Your task to perform on an android device: search for starred emails in the gmail app Image 0: 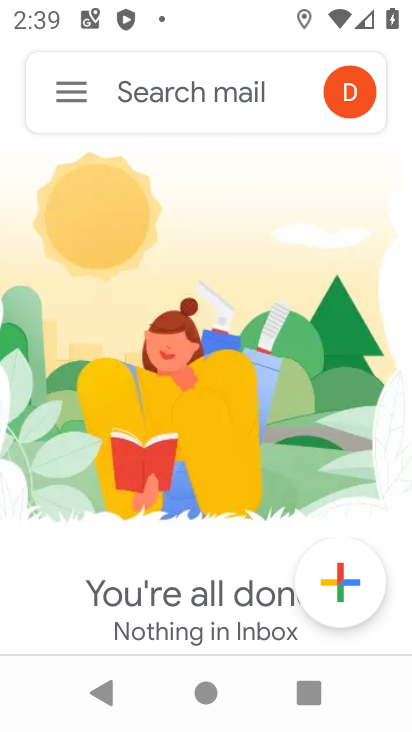
Step 0: press back button
Your task to perform on an android device: search for starred emails in the gmail app Image 1: 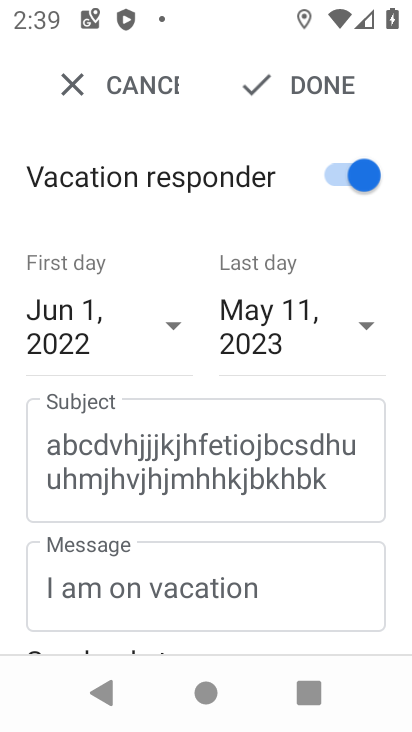
Step 1: click (64, 84)
Your task to perform on an android device: search for starred emails in the gmail app Image 2: 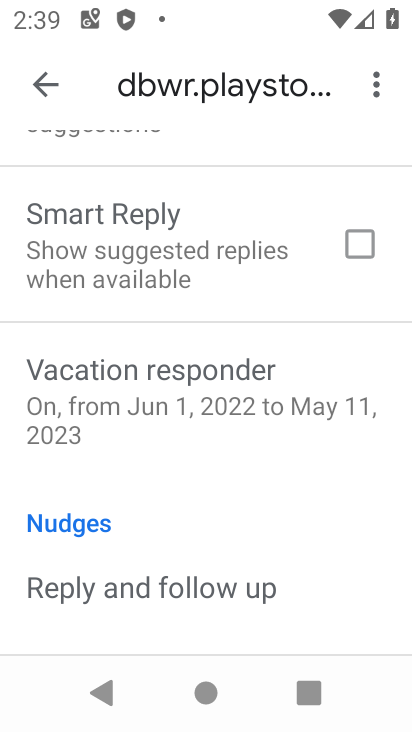
Step 2: click (38, 86)
Your task to perform on an android device: search for starred emails in the gmail app Image 3: 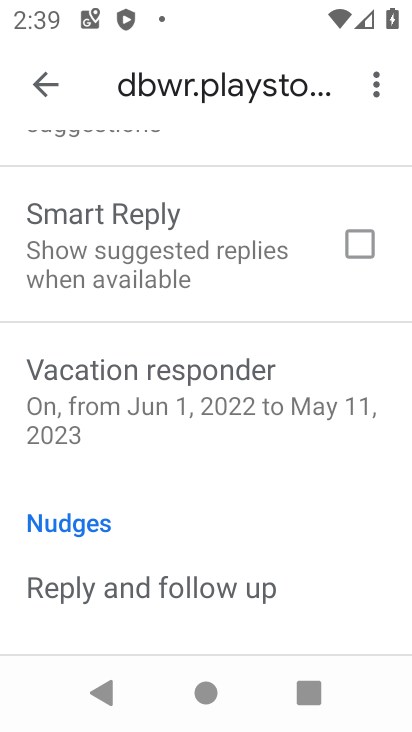
Step 3: click (38, 86)
Your task to perform on an android device: search for starred emails in the gmail app Image 4: 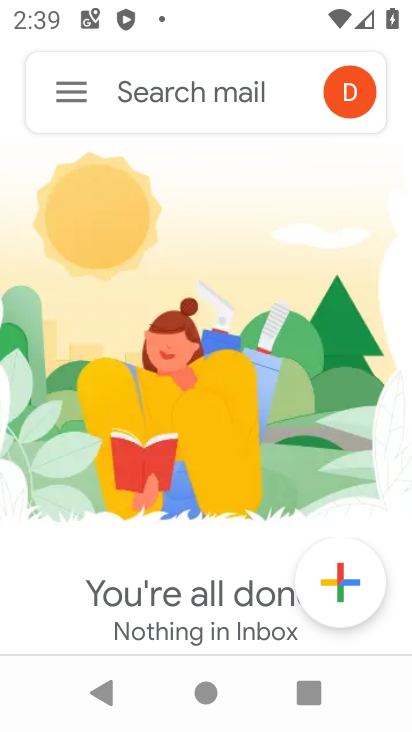
Step 4: click (75, 98)
Your task to perform on an android device: search for starred emails in the gmail app Image 5: 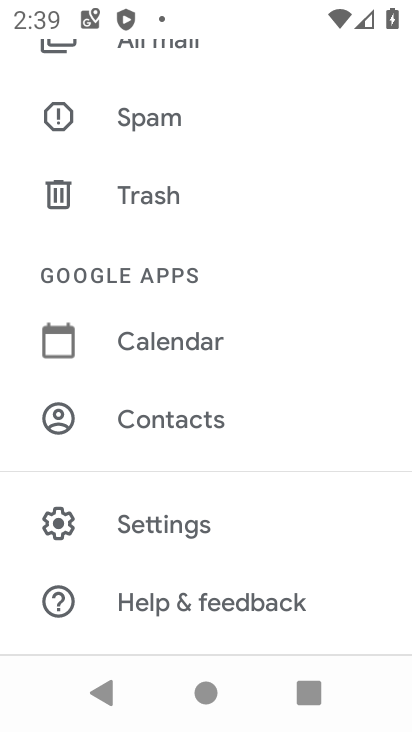
Step 5: click (282, 722)
Your task to perform on an android device: search for starred emails in the gmail app Image 6: 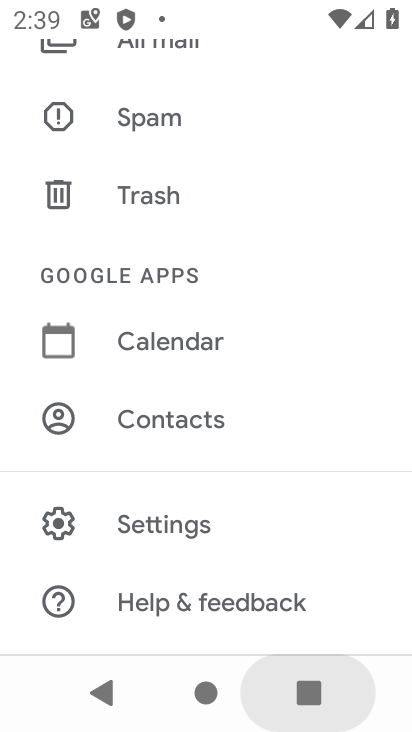
Step 6: drag from (144, 263) to (207, 553)
Your task to perform on an android device: search for starred emails in the gmail app Image 7: 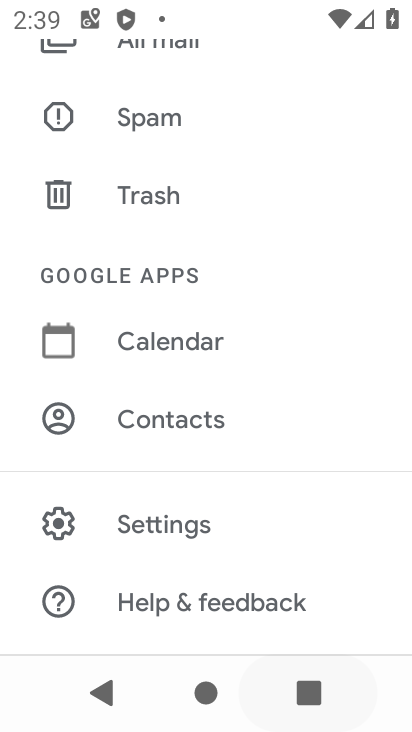
Step 7: drag from (103, 133) to (227, 531)
Your task to perform on an android device: search for starred emails in the gmail app Image 8: 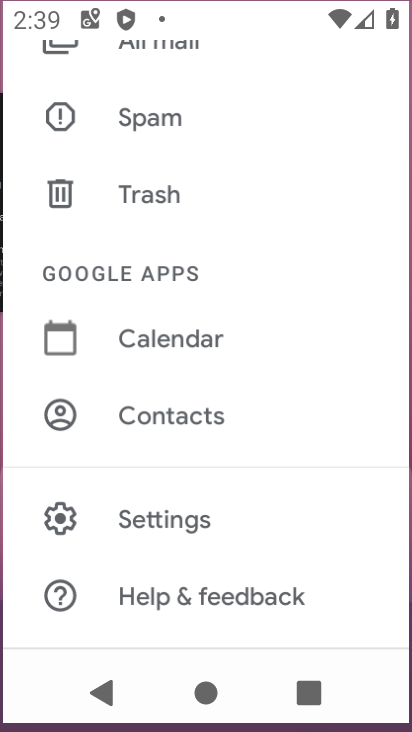
Step 8: drag from (124, 175) to (198, 543)
Your task to perform on an android device: search for starred emails in the gmail app Image 9: 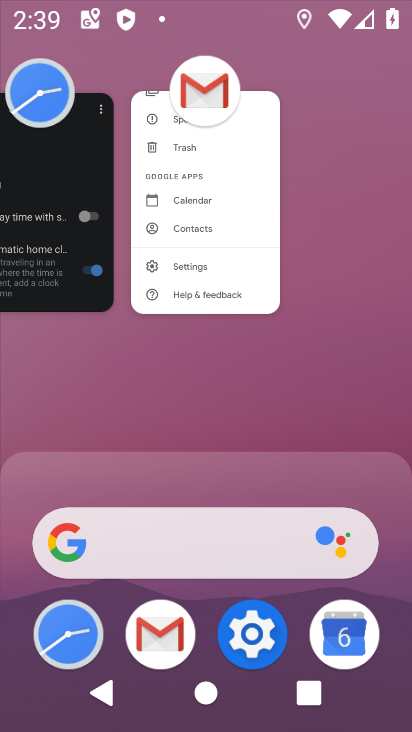
Step 9: press home button
Your task to perform on an android device: search for starred emails in the gmail app Image 10: 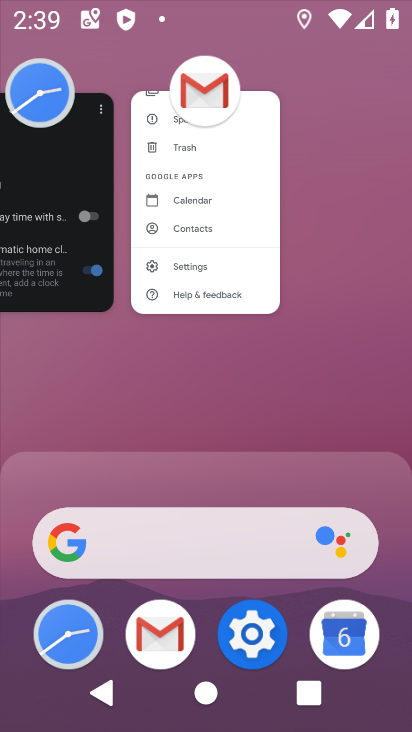
Step 10: drag from (152, 213) to (190, 192)
Your task to perform on an android device: search for starred emails in the gmail app Image 11: 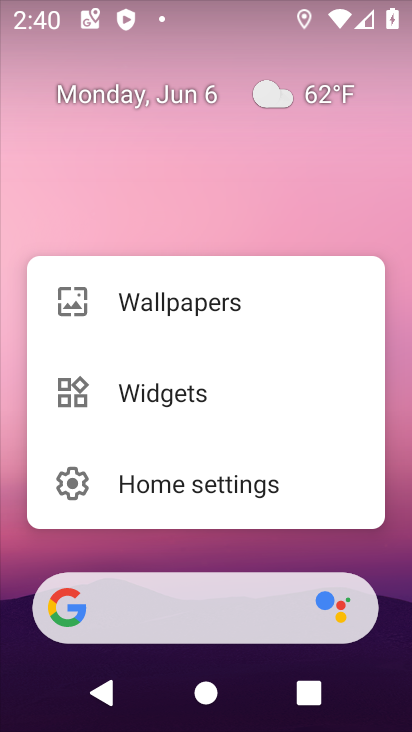
Step 11: drag from (234, 636) to (154, 55)
Your task to perform on an android device: search for starred emails in the gmail app Image 12: 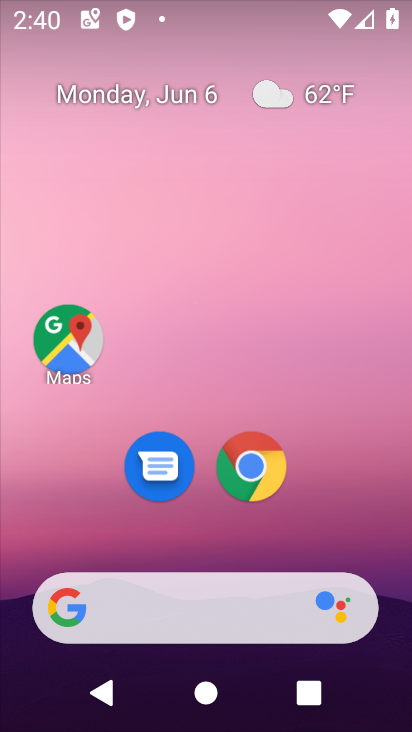
Step 12: drag from (278, 681) to (121, 245)
Your task to perform on an android device: search for starred emails in the gmail app Image 13: 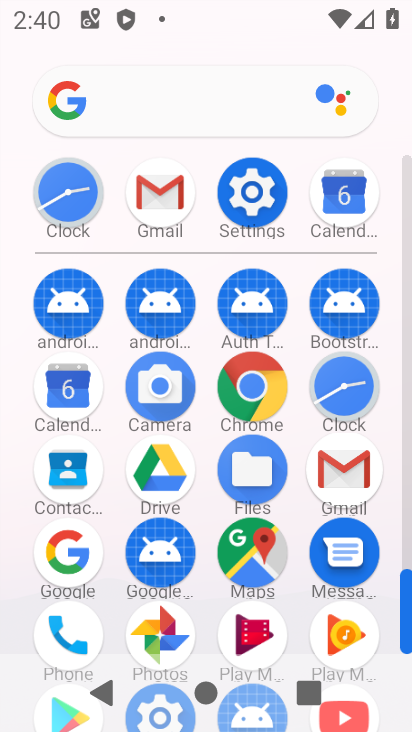
Step 13: click (161, 191)
Your task to perform on an android device: search for starred emails in the gmail app Image 14: 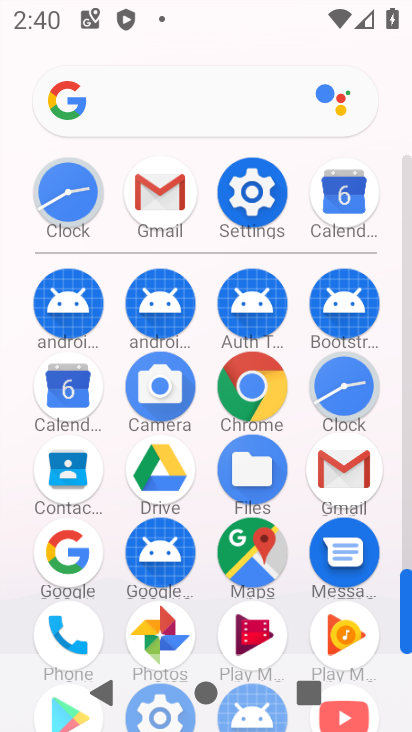
Step 14: click (170, 186)
Your task to perform on an android device: search for starred emails in the gmail app Image 15: 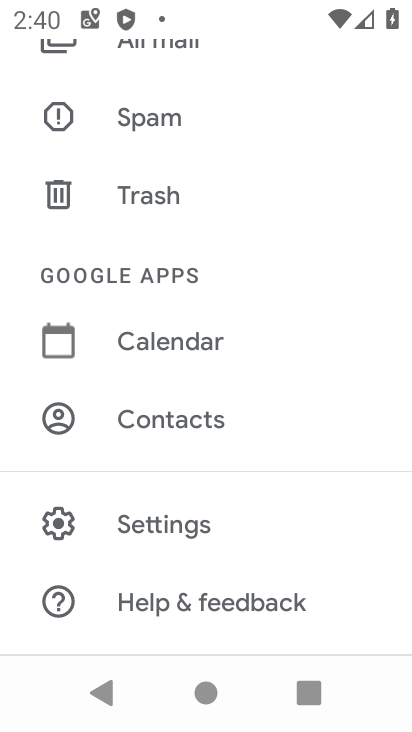
Step 15: click (266, 534)
Your task to perform on an android device: search for starred emails in the gmail app Image 16: 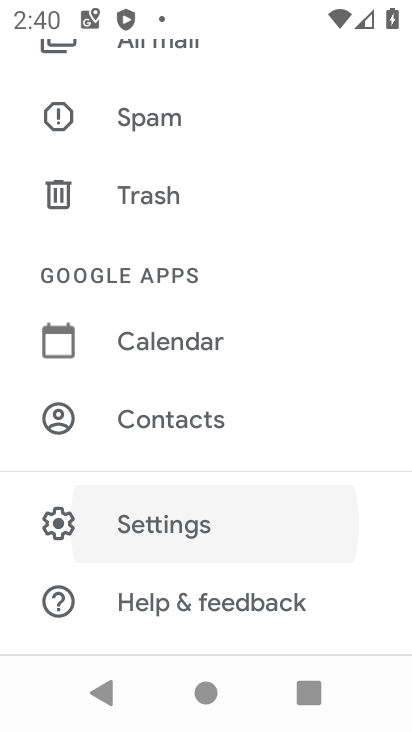
Step 16: drag from (194, 242) to (283, 549)
Your task to perform on an android device: search for starred emails in the gmail app Image 17: 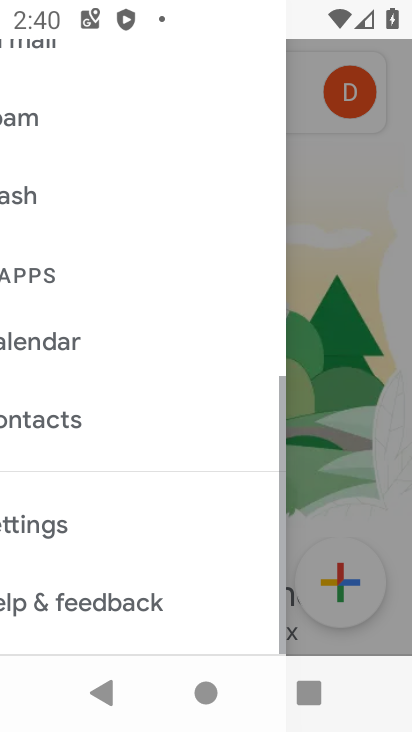
Step 17: drag from (276, 159) to (347, 570)
Your task to perform on an android device: search for starred emails in the gmail app Image 18: 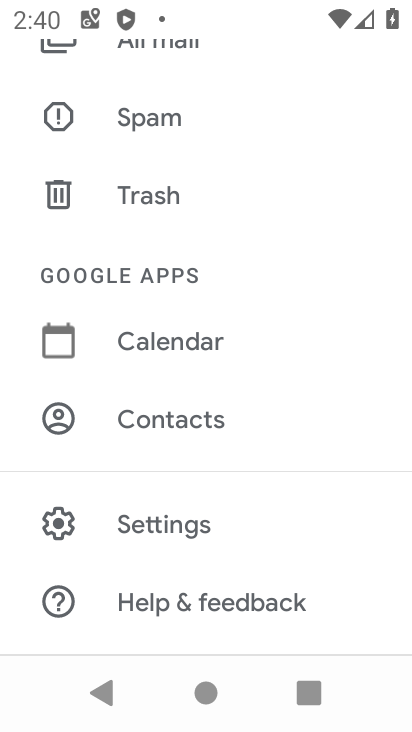
Step 18: drag from (139, 148) to (177, 687)
Your task to perform on an android device: search for starred emails in the gmail app Image 19: 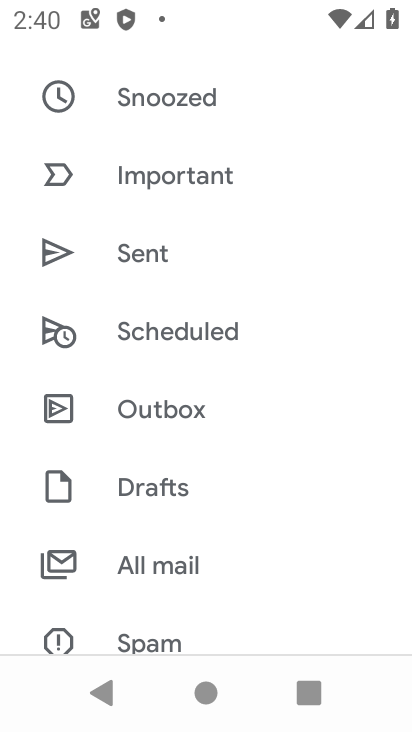
Step 19: drag from (120, 264) to (145, 596)
Your task to perform on an android device: search for starred emails in the gmail app Image 20: 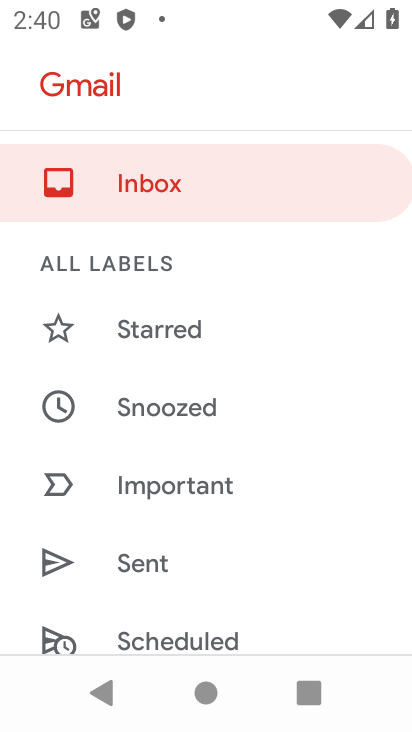
Step 20: click (131, 310)
Your task to perform on an android device: search for starred emails in the gmail app Image 21: 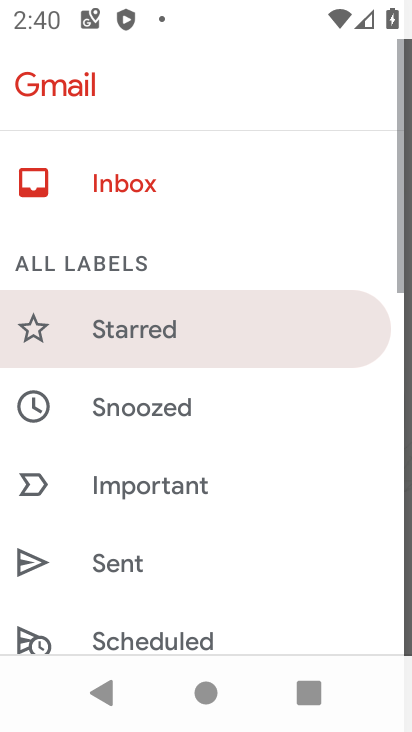
Step 21: click (160, 354)
Your task to perform on an android device: search for starred emails in the gmail app Image 22: 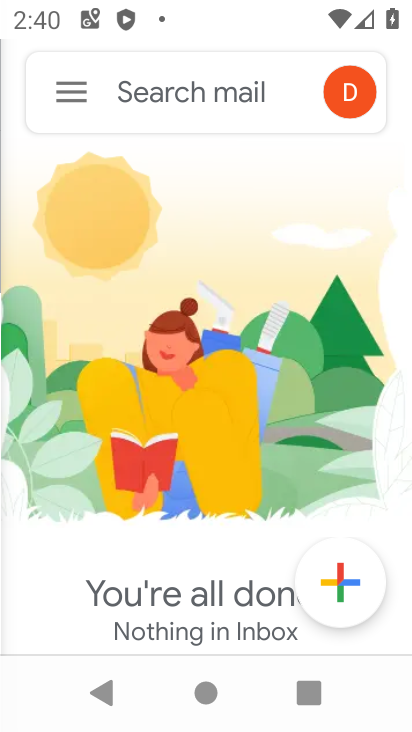
Step 22: click (162, 346)
Your task to perform on an android device: search for starred emails in the gmail app Image 23: 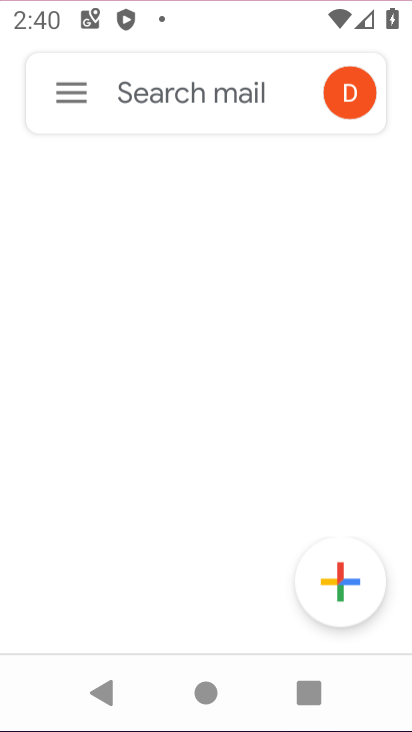
Step 23: click (163, 345)
Your task to perform on an android device: search for starred emails in the gmail app Image 24: 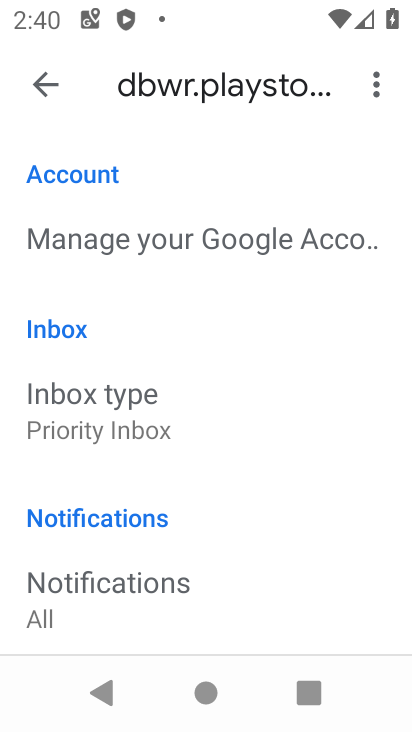
Step 24: task complete